Your task to perform on an android device: turn vacation reply on in the gmail app Image 0: 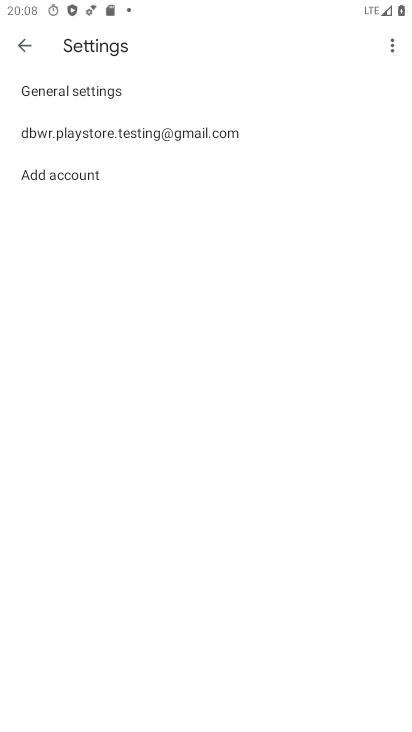
Step 0: press home button
Your task to perform on an android device: turn vacation reply on in the gmail app Image 1: 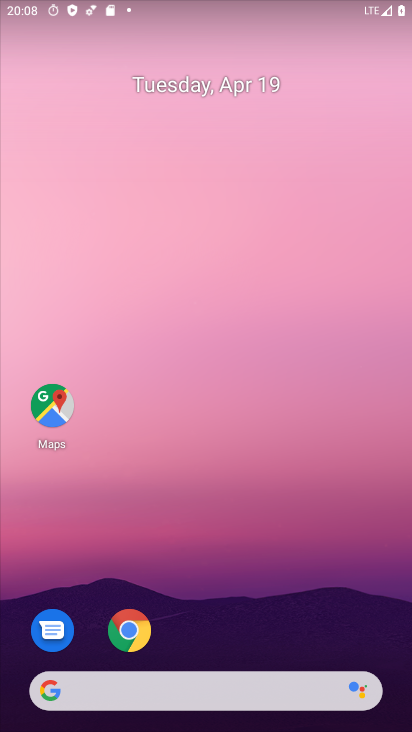
Step 1: drag from (205, 663) to (208, 5)
Your task to perform on an android device: turn vacation reply on in the gmail app Image 2: 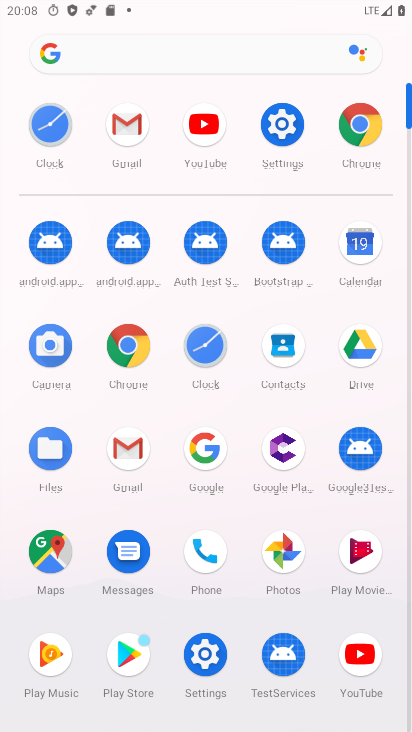
Step 2: click (127, 468)
Your task to perform on an android device: turn vacation reply on in the gmail app Image 3: 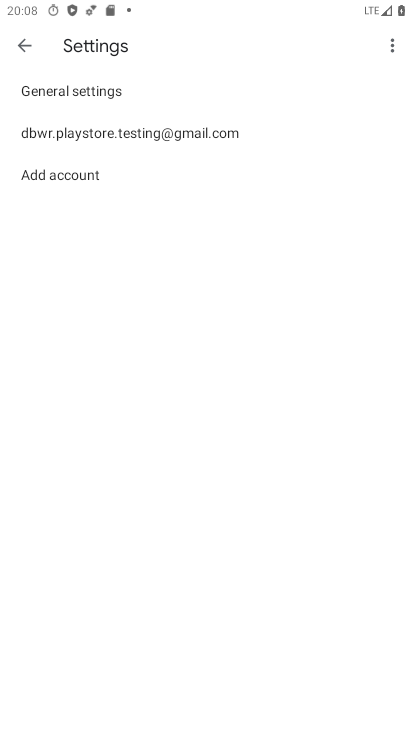
Step 3: click (115, 126)
Your task to perform on an android device: turn vacation reply on in the gmail app Image 4: 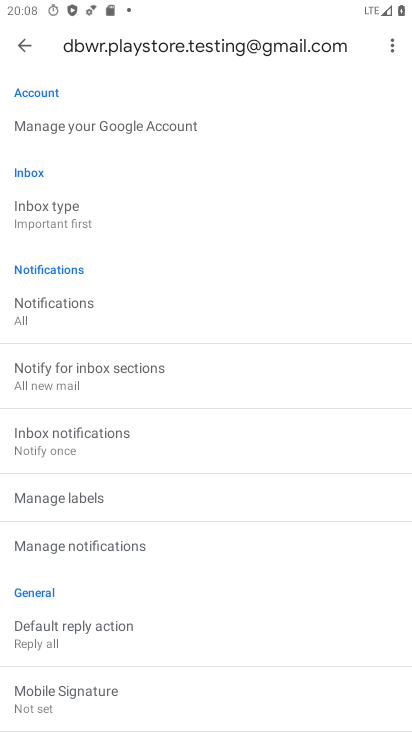
Step 4: drag from (206, 546) to (183, 133)
Your task to perform on an android device: turn vacation reply on in the gmail app Image 5: 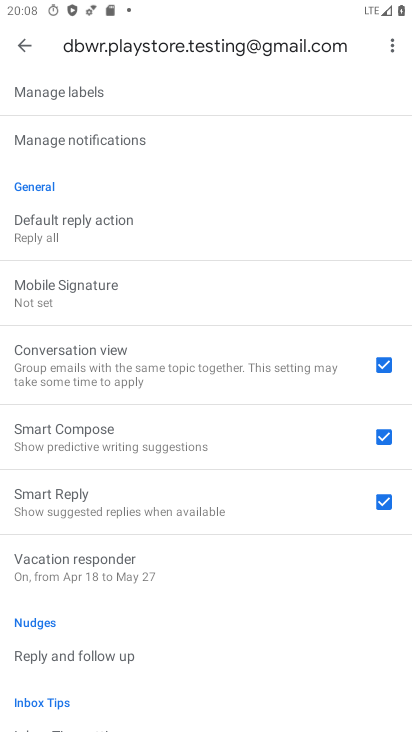
Step 5: click (102, 586)
Your task to perform on an android device: turn vacation reply on in the gmail app Image 6: 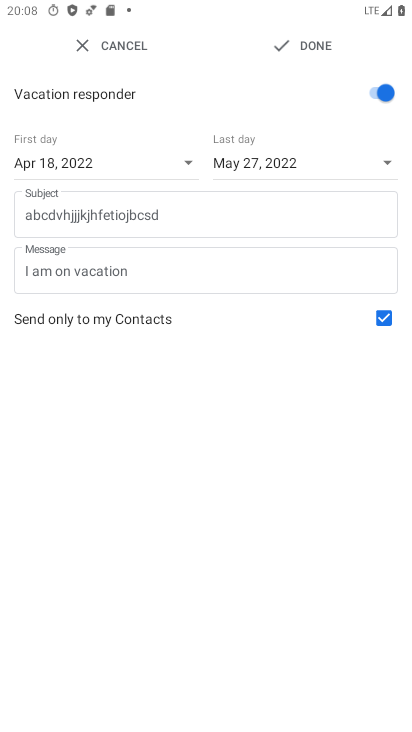
Step 6: click (334, 51)
Your task to perform on an android device: turn vacation reply on in the gmail app Image 7: 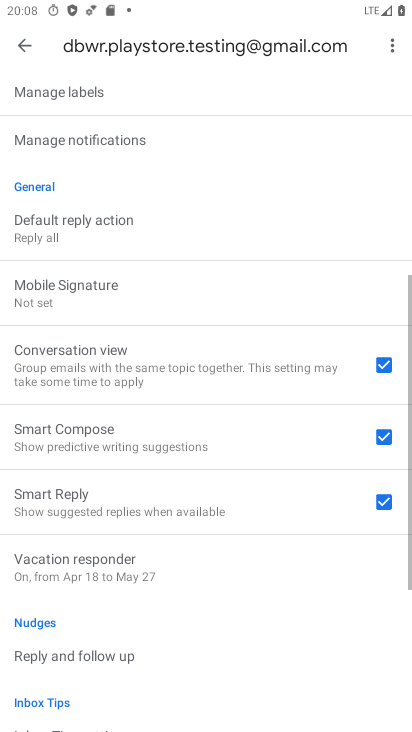
Step 7: task complete